Your task to perform on an android device: Open the web browser Image 0: 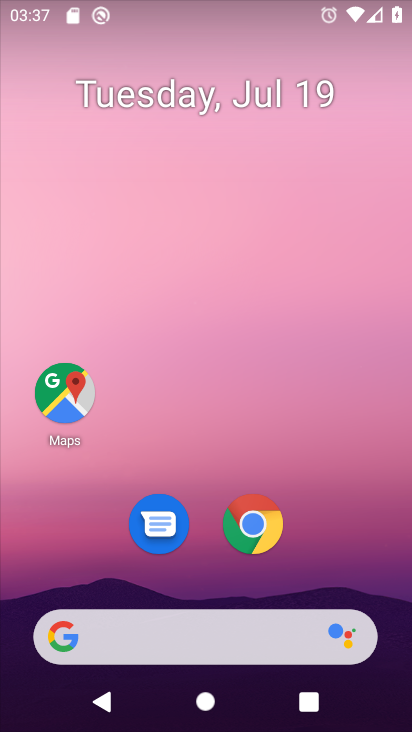
Step 0: click (230, 653)
Your task to perform on an android device: Open the web browser Image 1: 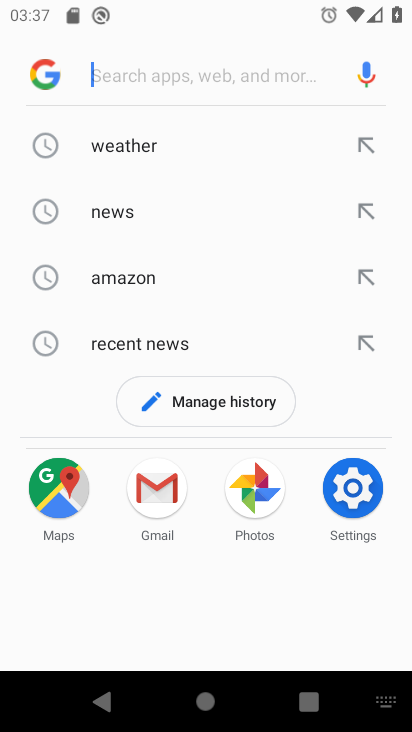
Step 1: task complete